Your task to perform on an android device: open wifi settings Image 0: 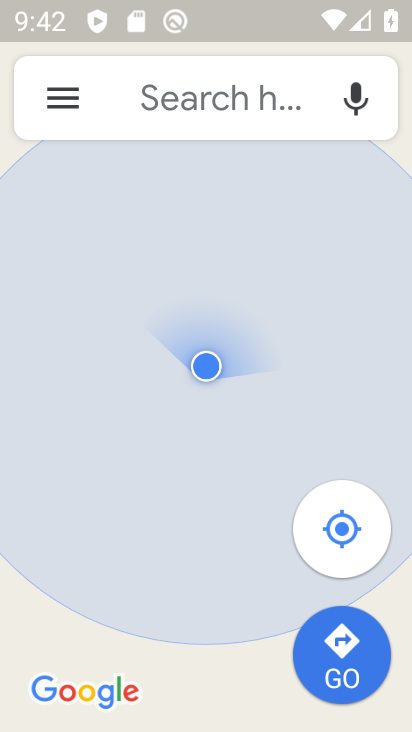
Step 0: press home button
Your task to perform on an android device: open wifi settings Image 1: 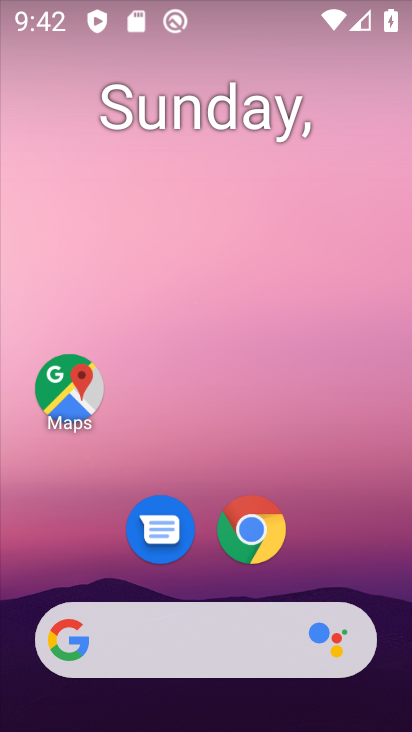
Step 1: drag from (310, 530) to (251, 58)
Your task to perform on an android device: open wifi settings Image 2: 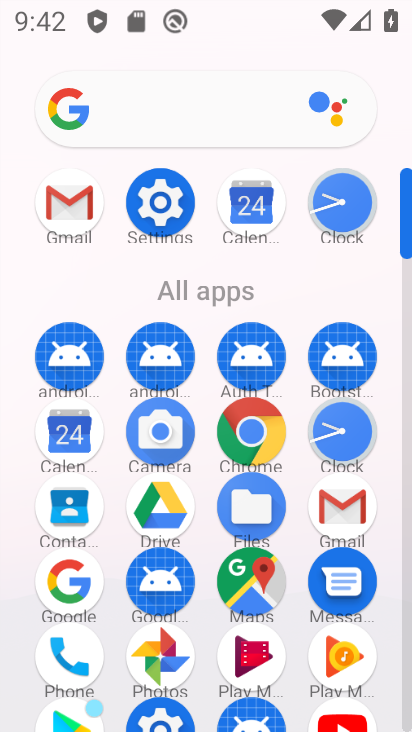
Step 2: click (157, 196)
Your task to perform on an android device: open wifi settings Image 3: 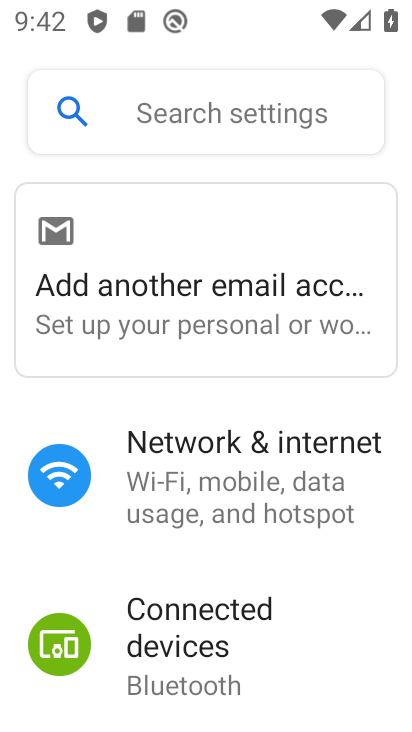
Step 3: click (250, 481)
Your task to perform on an android device: open wifi settings Image 4: 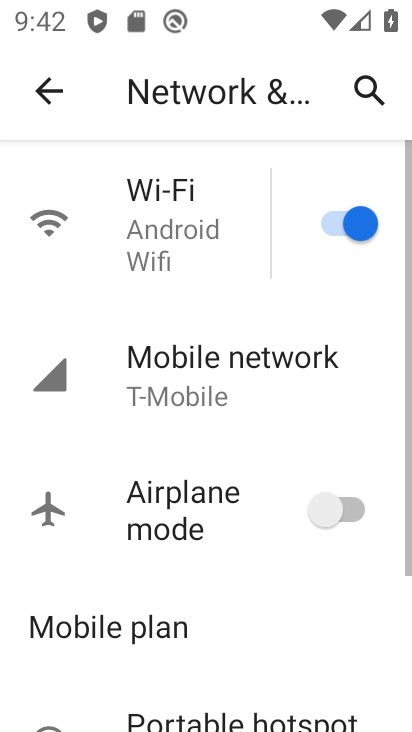
Step 4: click (160, 215)
Your task to perform on an android device: open wifi settings Image 5: 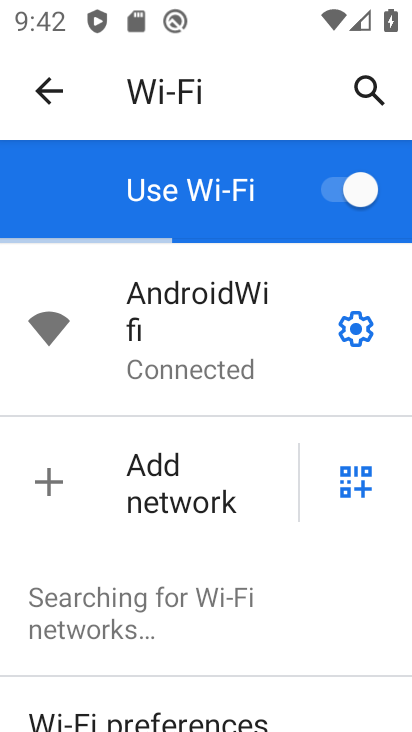
Step 5: task complete